Your task to perform on an android device: change alarm snooze length Image 0: 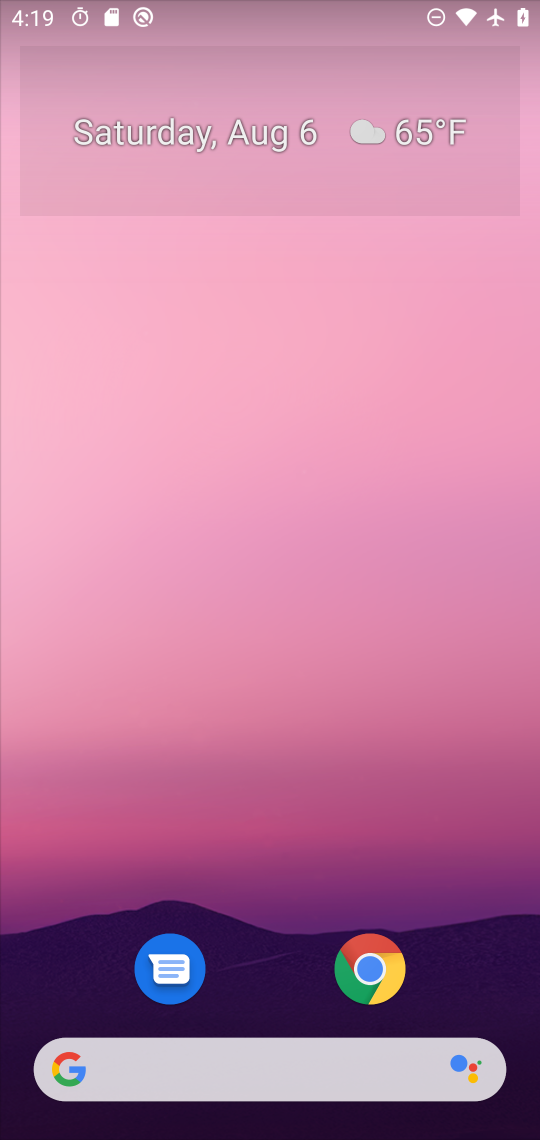
Step 0: press home button
Your task to perform on an android device: change alarm snooze length Image 1: 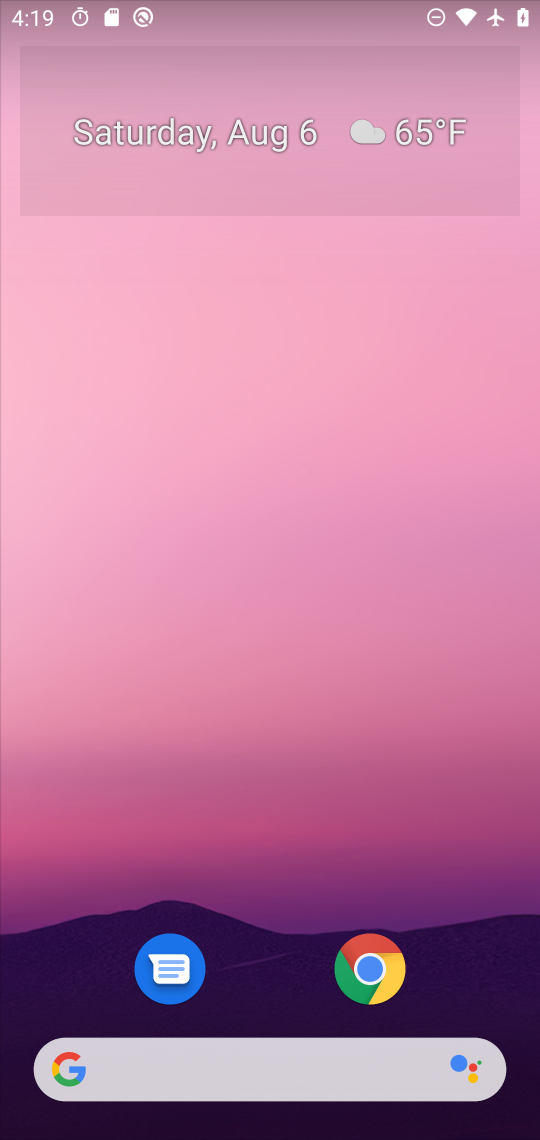
Step 1: drag from (255, 859) to (234, 46)
Your task to perform on an android device: change alarm snooze length Image 2: 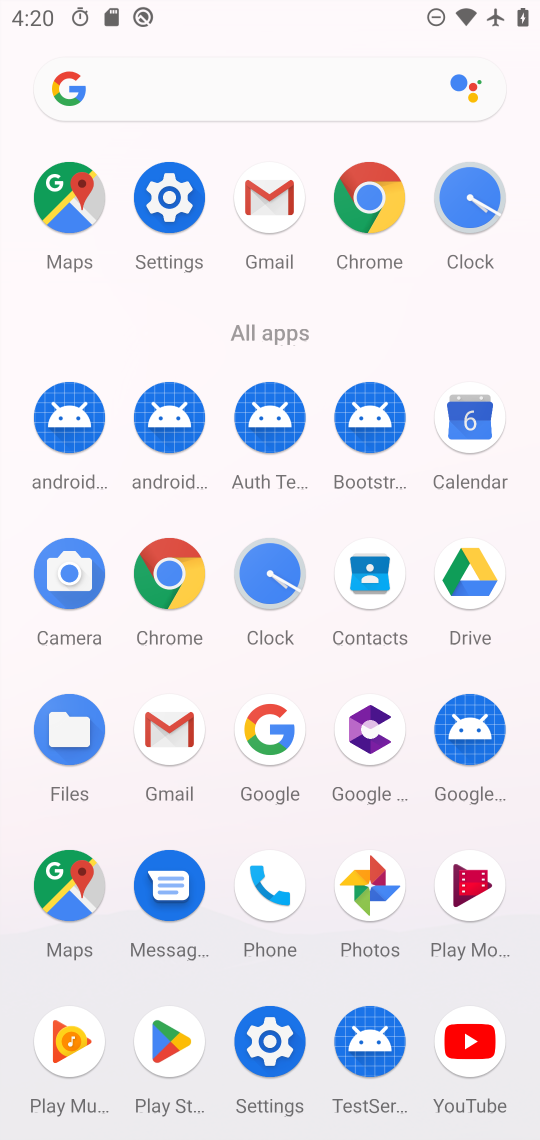
Step 2: click (487, 205)
Your task to perform on an android device: change alarm snooze length Image 3: 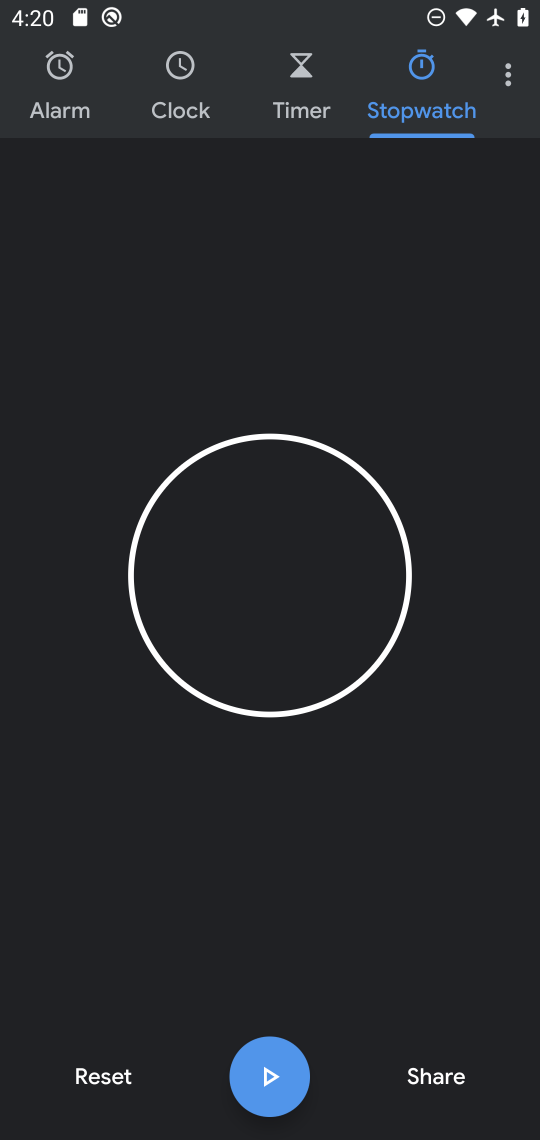
Step 3: click (45, 87)
Your task to perform on an android device: change alarm snooze length Image 4: 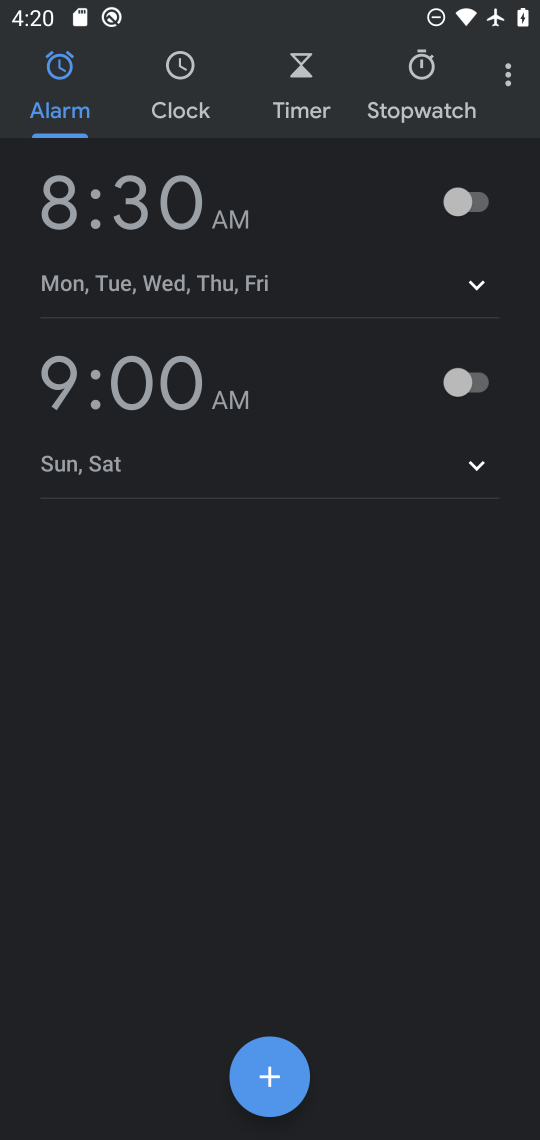
Step 4: task complete